Your task to perform on an android device: set default search engine in the chrome app Image 0: 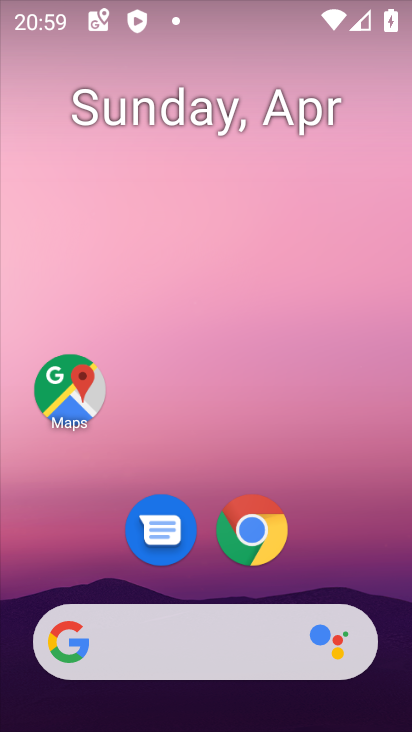
Step 0: drag from (209, 512) to (242, 48)
Your task to perform on an android device: set default search engine in the chrome app Image 1: 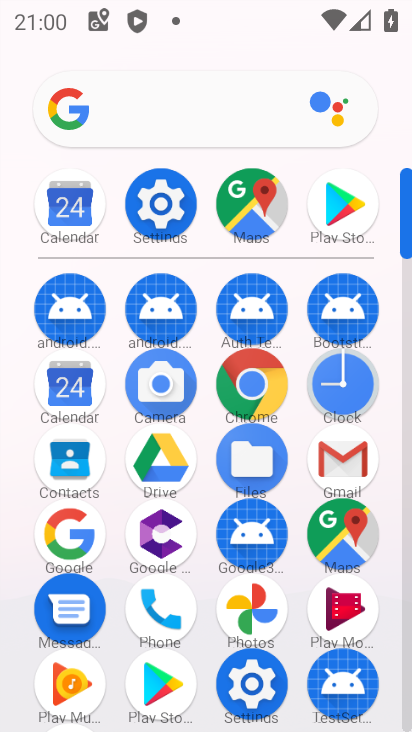
Step 1: click (254, 381)
Your task to perform on an android device: set default search engine in the chrome app Image 2: 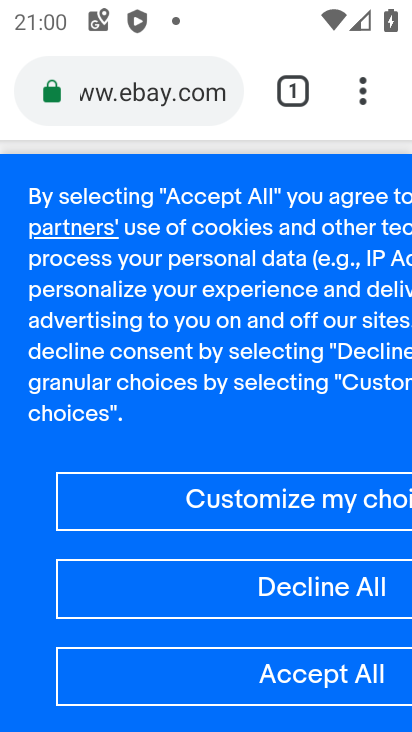
Step 2: click (358, 89)
Your task to perform on an android device: set default search engine in the chrome app Image 3: 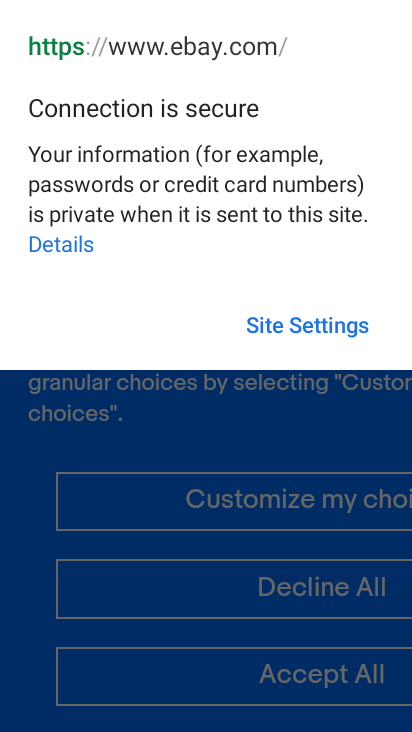
Step 3: click (212, 403)
Your task to perform on an android device: set default search engine in the chrome app Image 4: 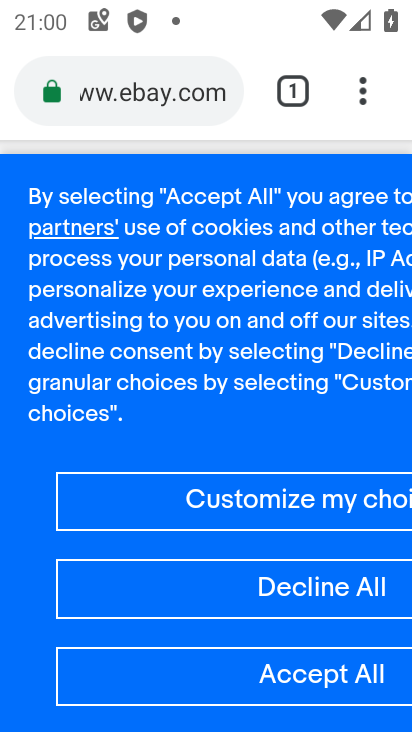
Step 4: click (356, 97)
Your task to perform on an android device: set default search engine in the chrome app Image 5: 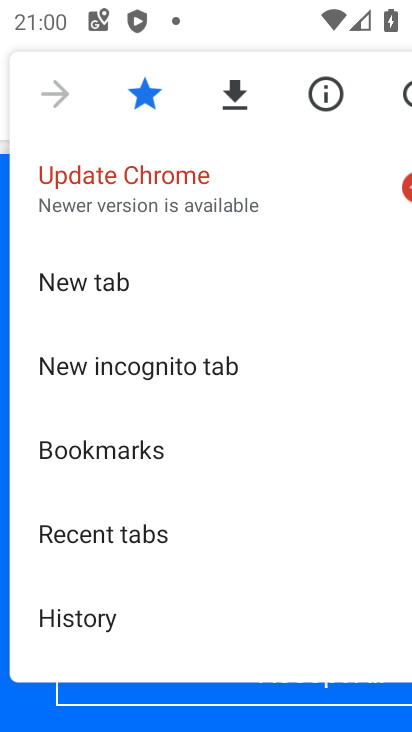
Step 5: drag from (187, 560) to (214, 120)
Your task to perform on an android device: set default search engine in the chrome app Image 6: 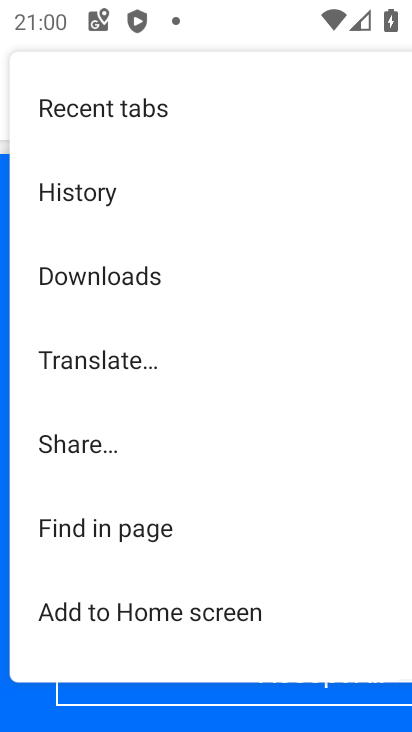
Step 6: drag from (166, 646) to (201, 222)
Your task to perform on an android device: set default search engine in the chrome app Image 7: 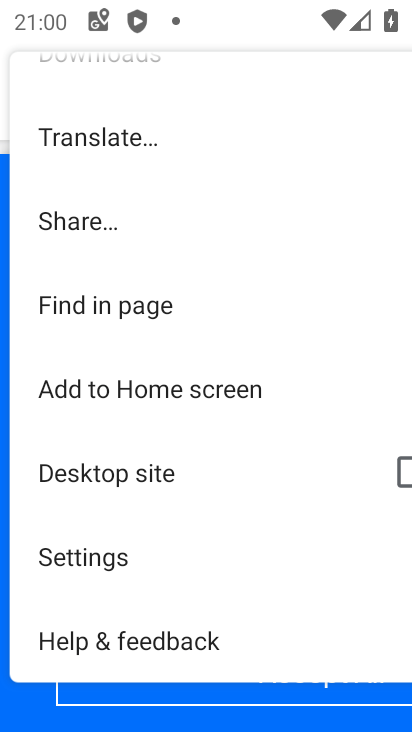
Step 7: click (159, 564)
Your task to perform on an android device: set default search engine in the chrome app Image 8: 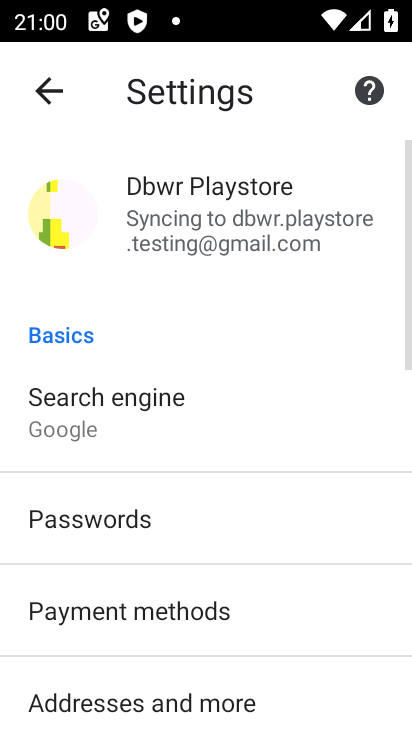
Step 8: click (128, 395)
Your task to perform on an android device: set default search engine in the chrome app Image 9: 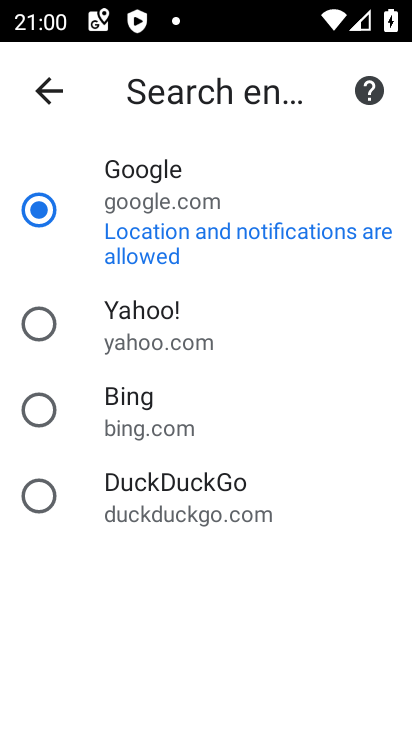
Step 9: click (50, 209)
Your task to perform on an android device: set default search engine in the chrome app Image 10: 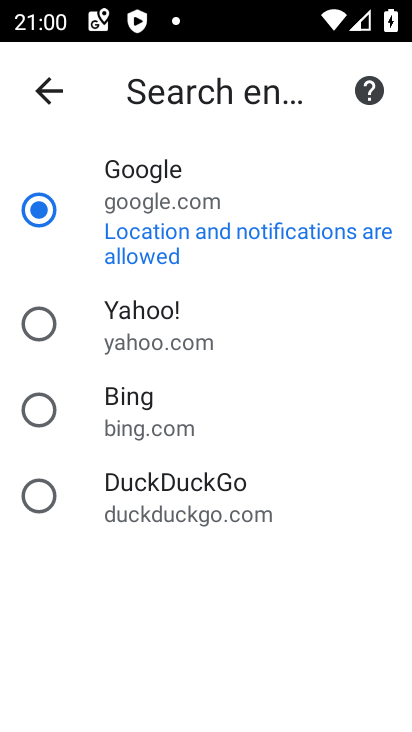
Step 10: task complete